Your task to perform on an android device: delete the emails in spam in the gmail app Image 0: 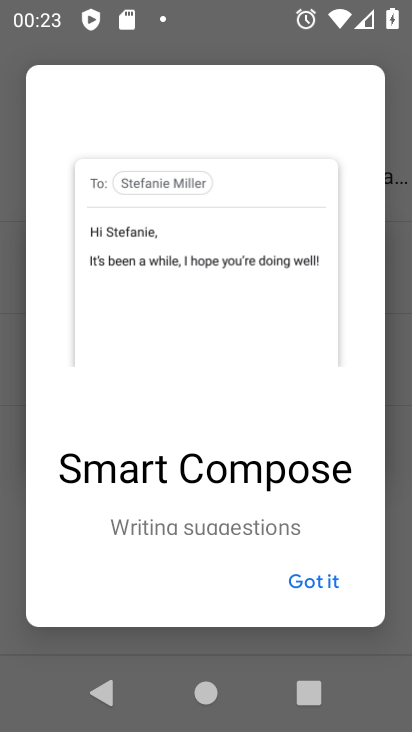
Step 0: press home button
Your task to perform on an android device: delete the emails in spam in the gmail app Image 1: 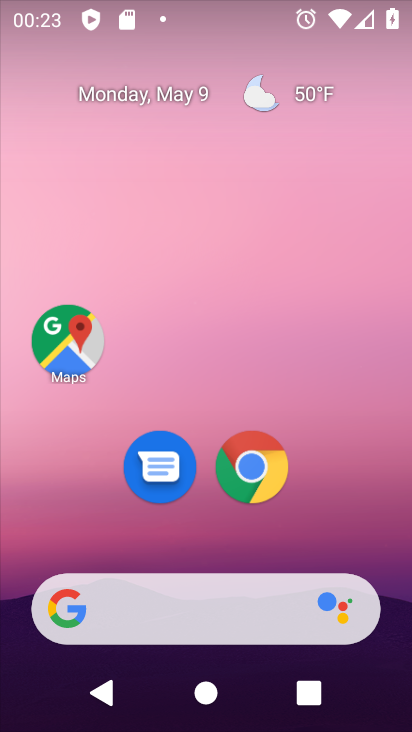
Step 1: drag from (206, 539) to (244, 28)
Your task to perform on an android device: delete the emails in spam in the gmail app Image 2: 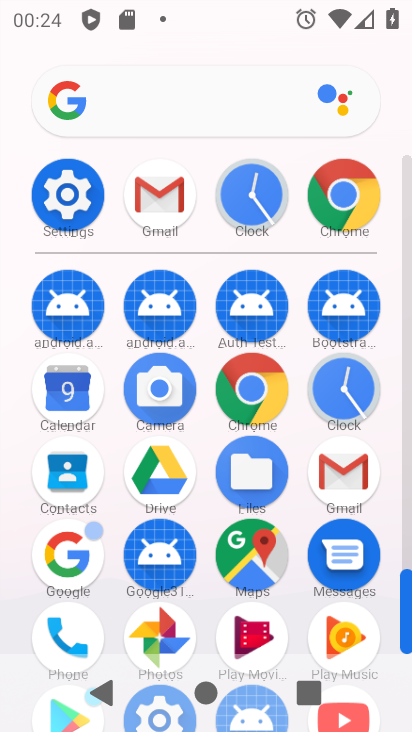
Step 2: click (347, 465)
Your task to perform on an android device: delete the emails in spam in the gmail app Image 3: 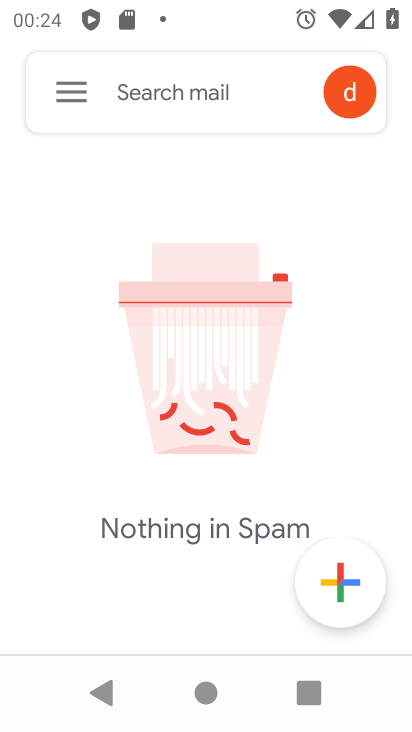
Step 3: task complete